Your task to perform on an android device: stop showing notifications on the lock screen Image 0: 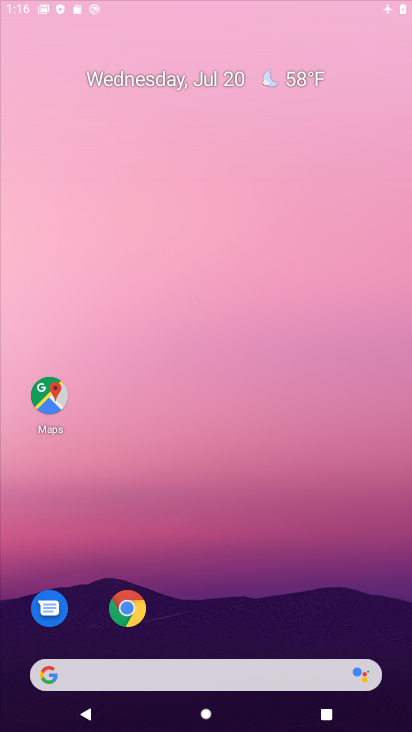
Step 0: press home button
Your task to perform on an android device: stop showing notifications on the lock screen Image 1: 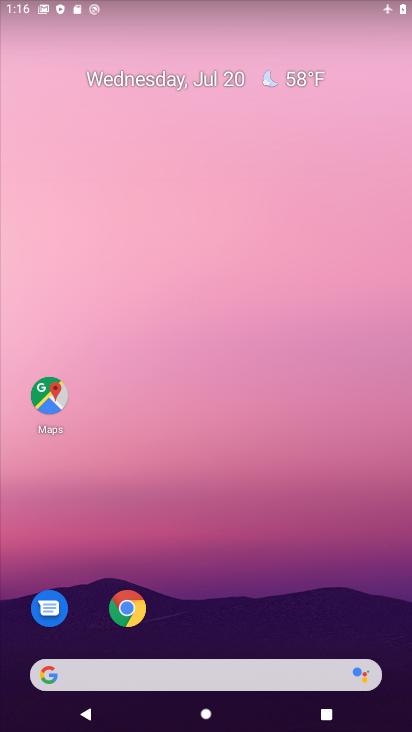
Step 1: drag from (246, 724) to (270, 70)
Your task to perform on an android device: stop showing notifications on the lock screen Image 2: 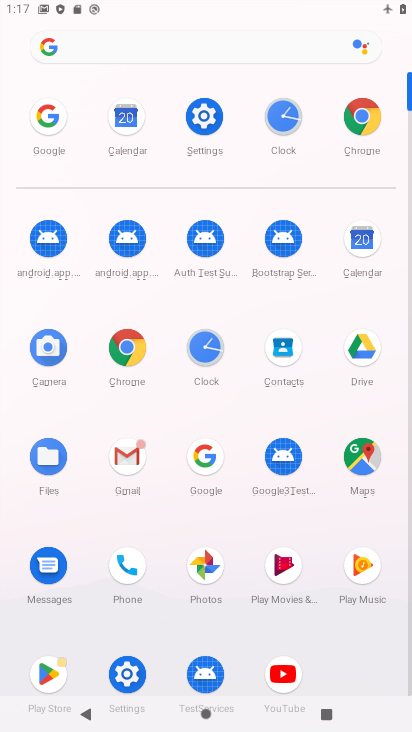
Step 2: click (203, 117)
Your task to perform on an android device: stop showing notifications on the lock screen Image 3: 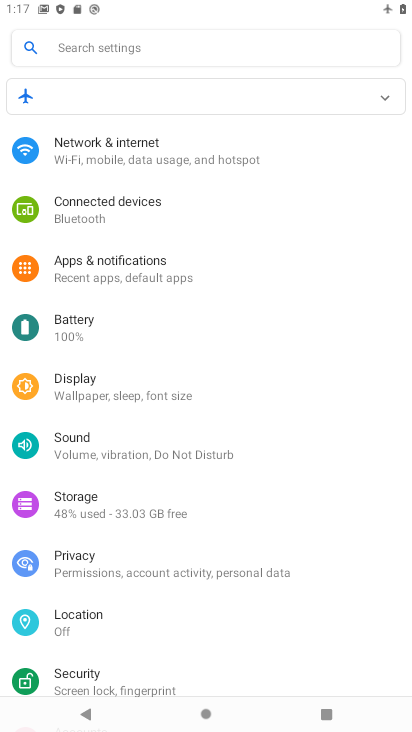
Step 3: click (102, 265)
Your task to perform on an android device: stop showing notifications on the lock screen Image 4: 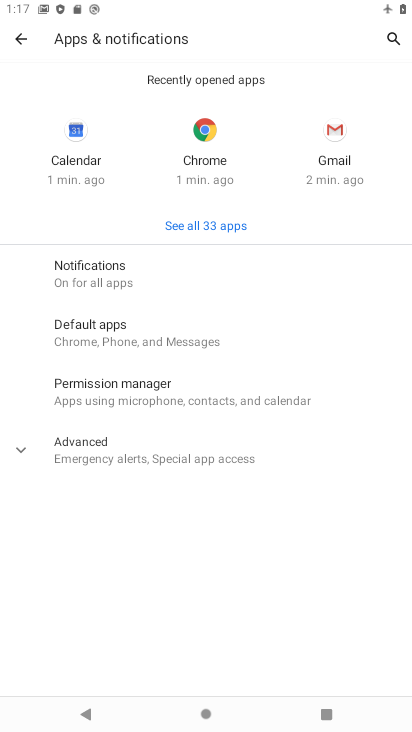
Step 4: click (92, 274)
Your task to perform on an android device: stop showing notifications on the lock screen Image 5: 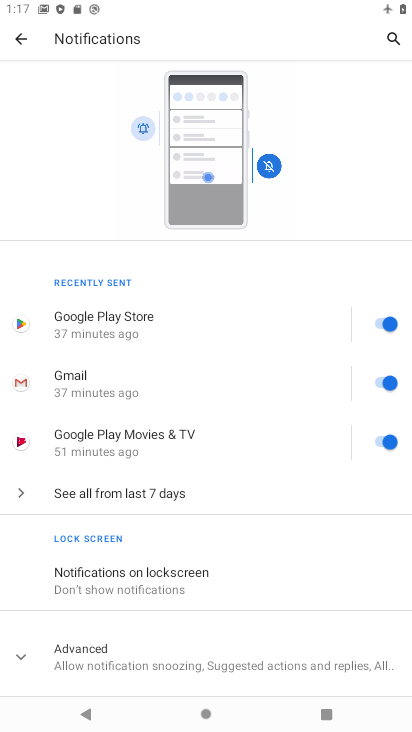
Step 5: task complete